Your task to perform on an android device: turn off wifi Image 0: 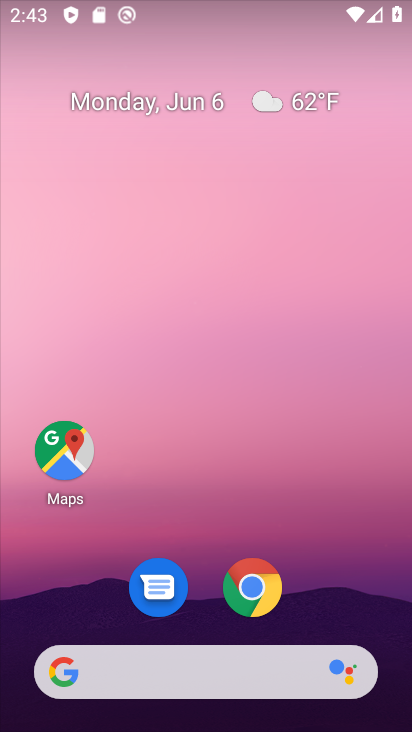
Step 0: drag from (209, 649) to (202, 118)
Your task to perform on an android device: turn off wifi Image 1: 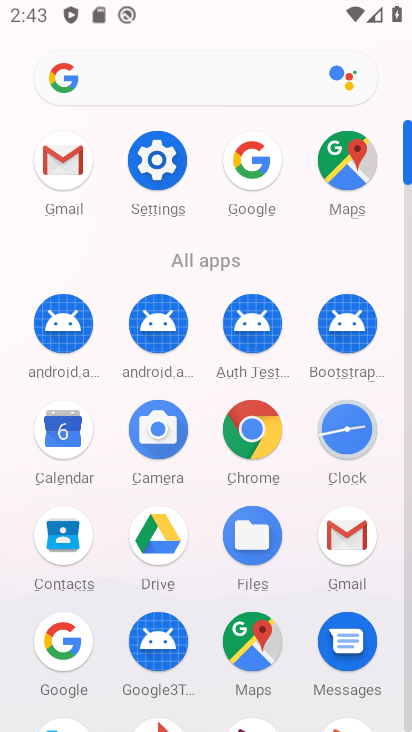
Step 1: click (133, 182)
Your task to perform on an android device: turn off wifi Image 2: 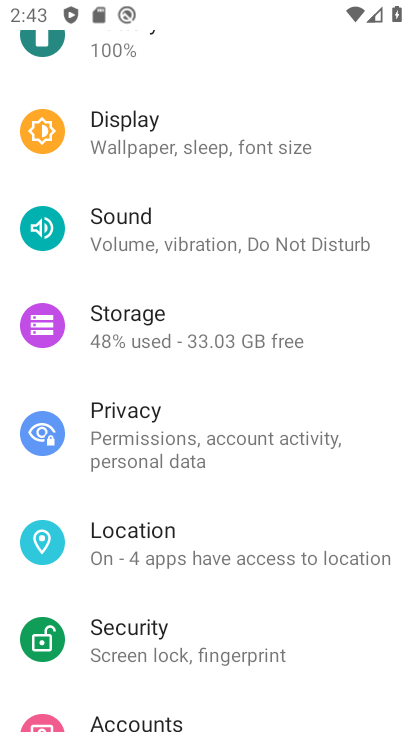
Step 2: drag from (166, 93) to (204, 550)
Your task to perform on an android device: turn off wifi Image 3: 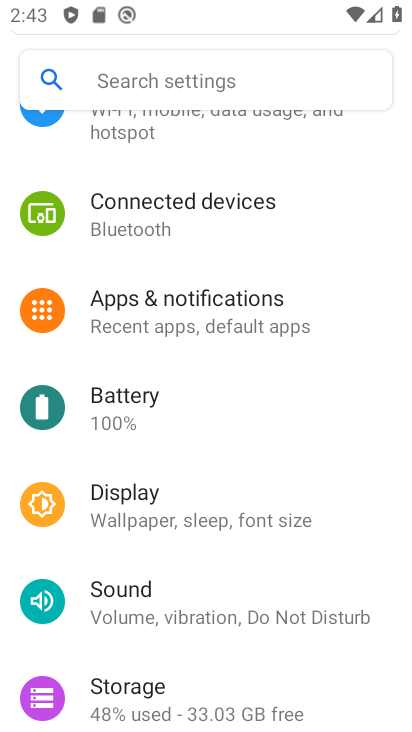
Step 3: drag from (208, 151) to (243, 628)
Your task to perform on an android device: turn off wifi Image 4: 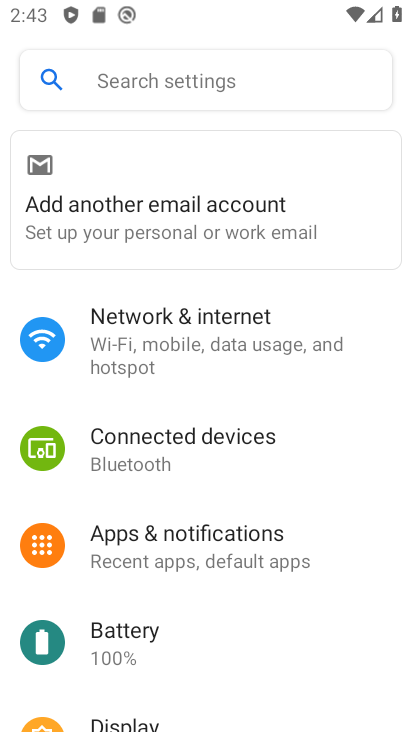
Step 4: click (187, 340)
Your task to perform on an android device: turn off wifi Image 5: 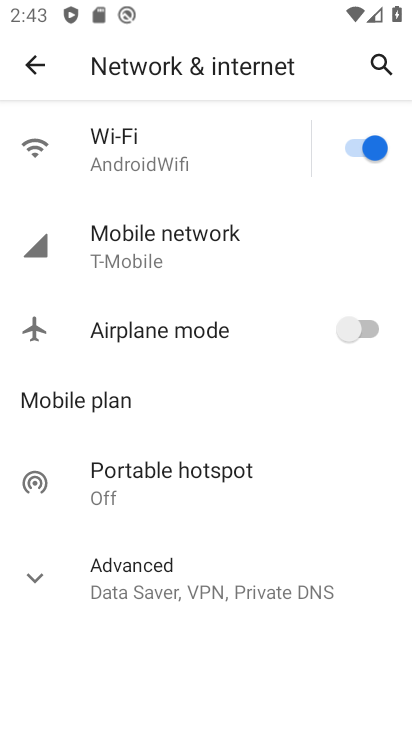
Step 5: click (368, 144)
Your task to perform on an android device: turn off wifi Image 6: 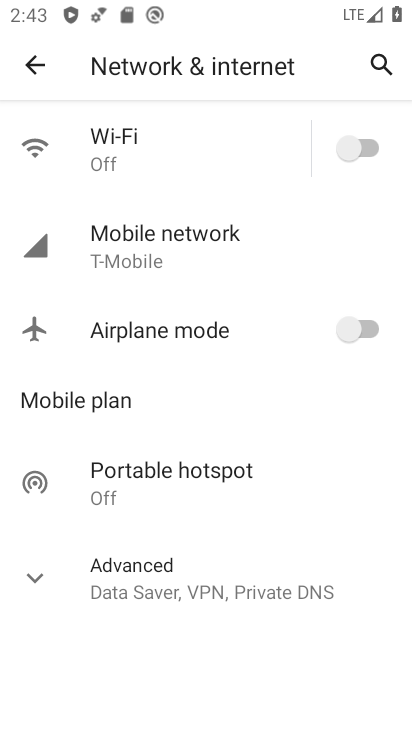
Step 6: task complete